Your task to perform on an android device: Add jbl charge 4 to the cart on target, then select checkout. Image 0: 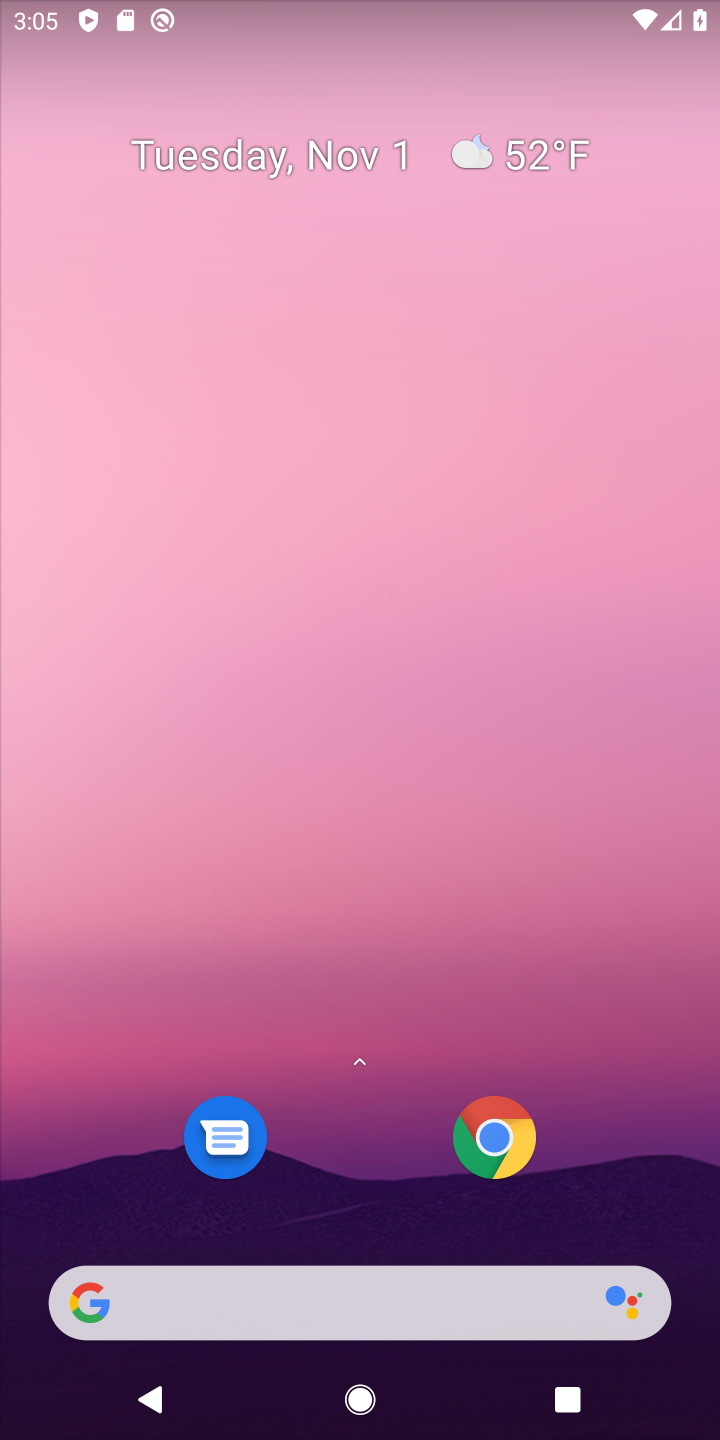
Step 0: click (409, 1320)
Your task to perform on an android device: Add jbl charge 4 to the cart on target, then select checkout. Image 1: 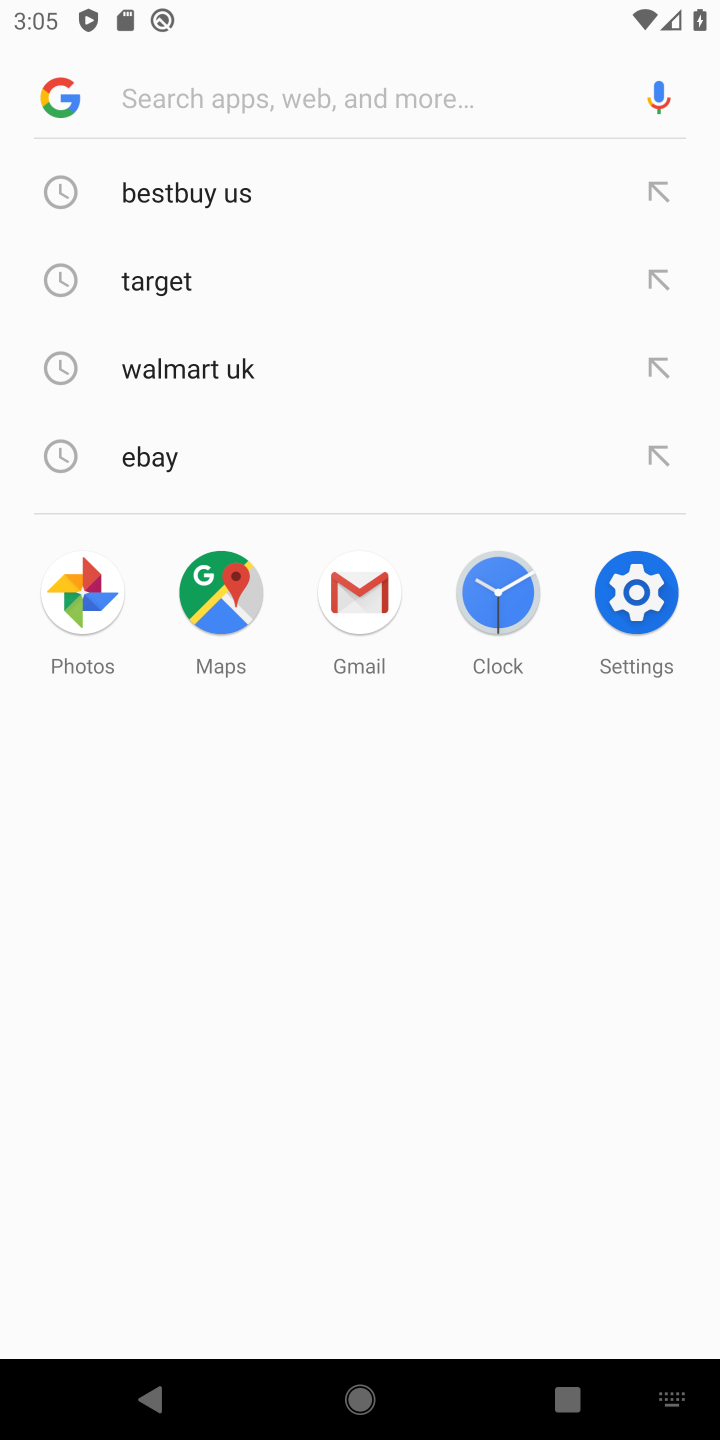
Step 1: click (179, 271)
Your task to perform on an android device: Add jbl charge 4 to the cart on target, then select checkout. Image 2: 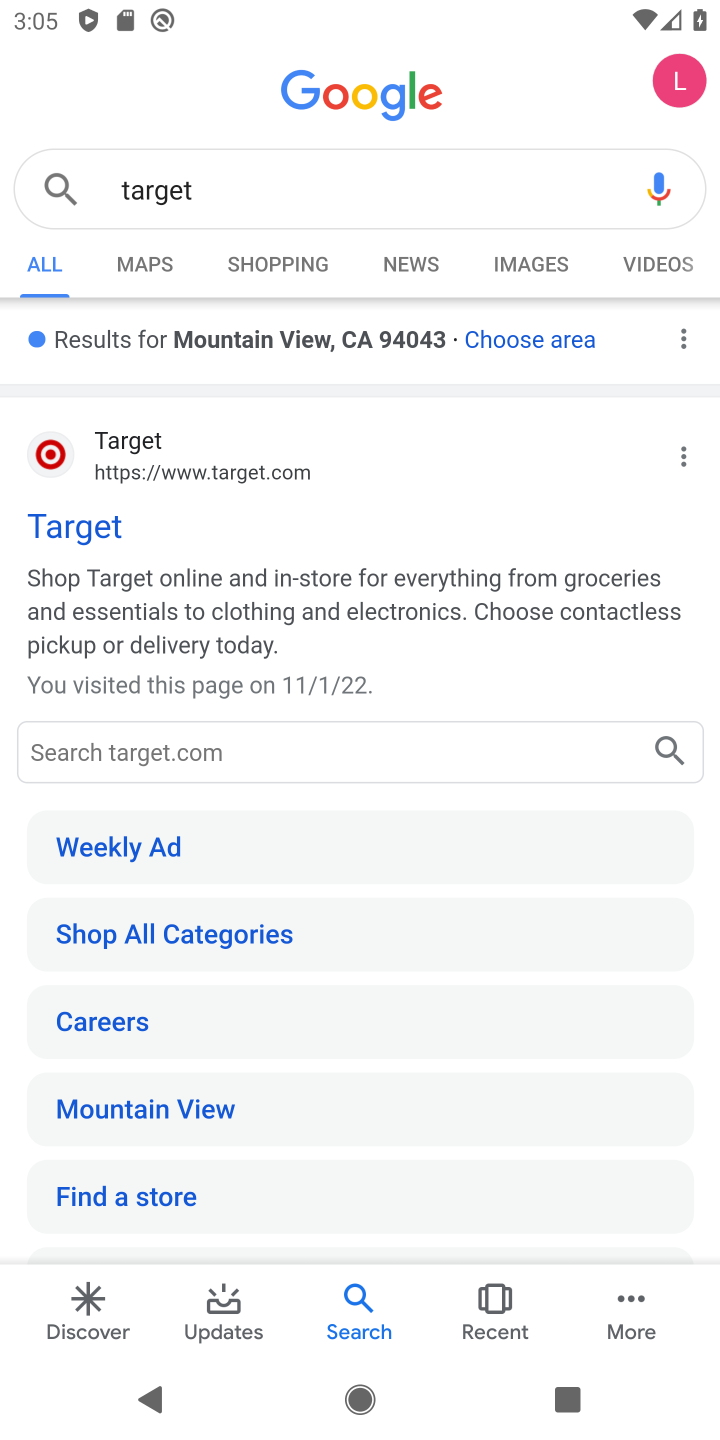
Step 2: click (77, 565)
Your task to perform on an android device: Add jbl charge 4 to the cart on target, then select checkout. Image 3: 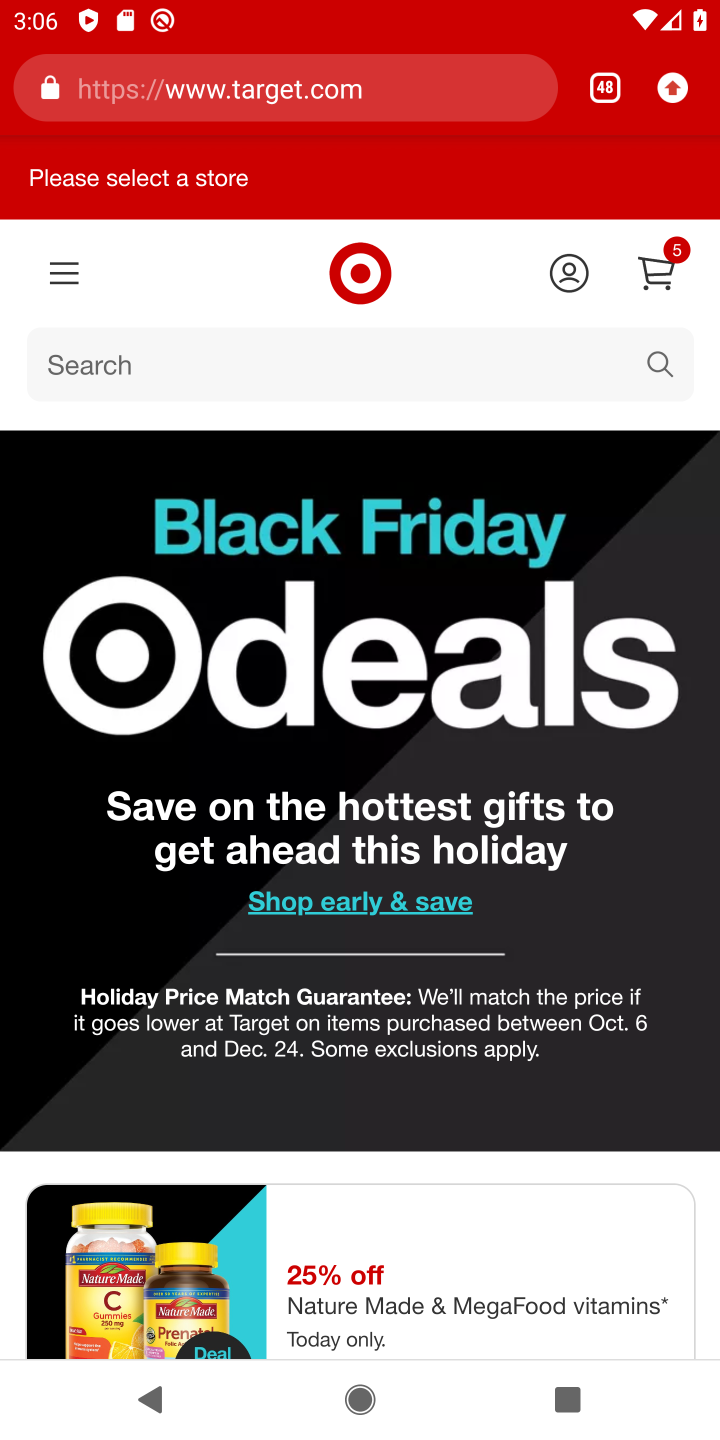
Step 3: click (578, 345)
Your task to perform on an android device: Add jbl charge 4 to the cart on target, then select checkout. Image 4: 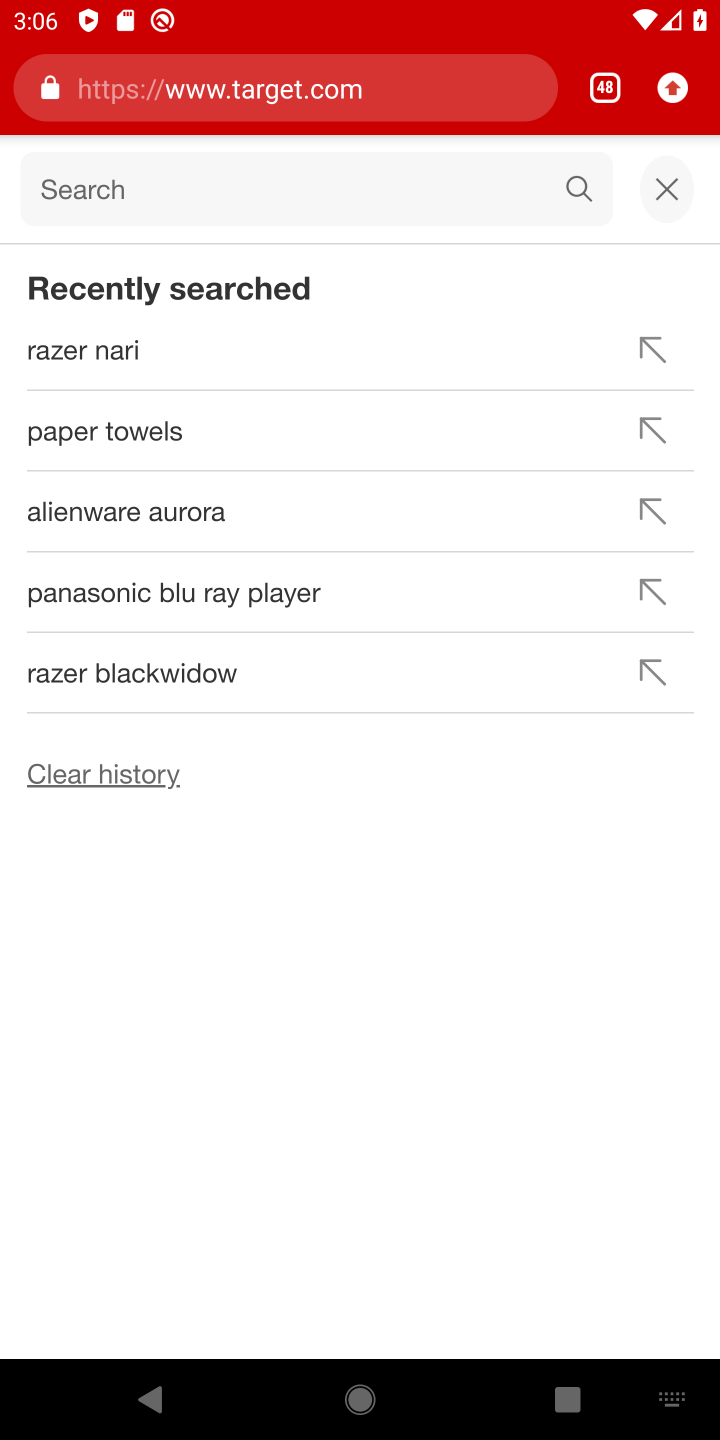
Step 4: type "jbl charge 4"
Your task to perform on an android device: Add jbl charge 4 to the cart on target, then select checkout. Image 5: 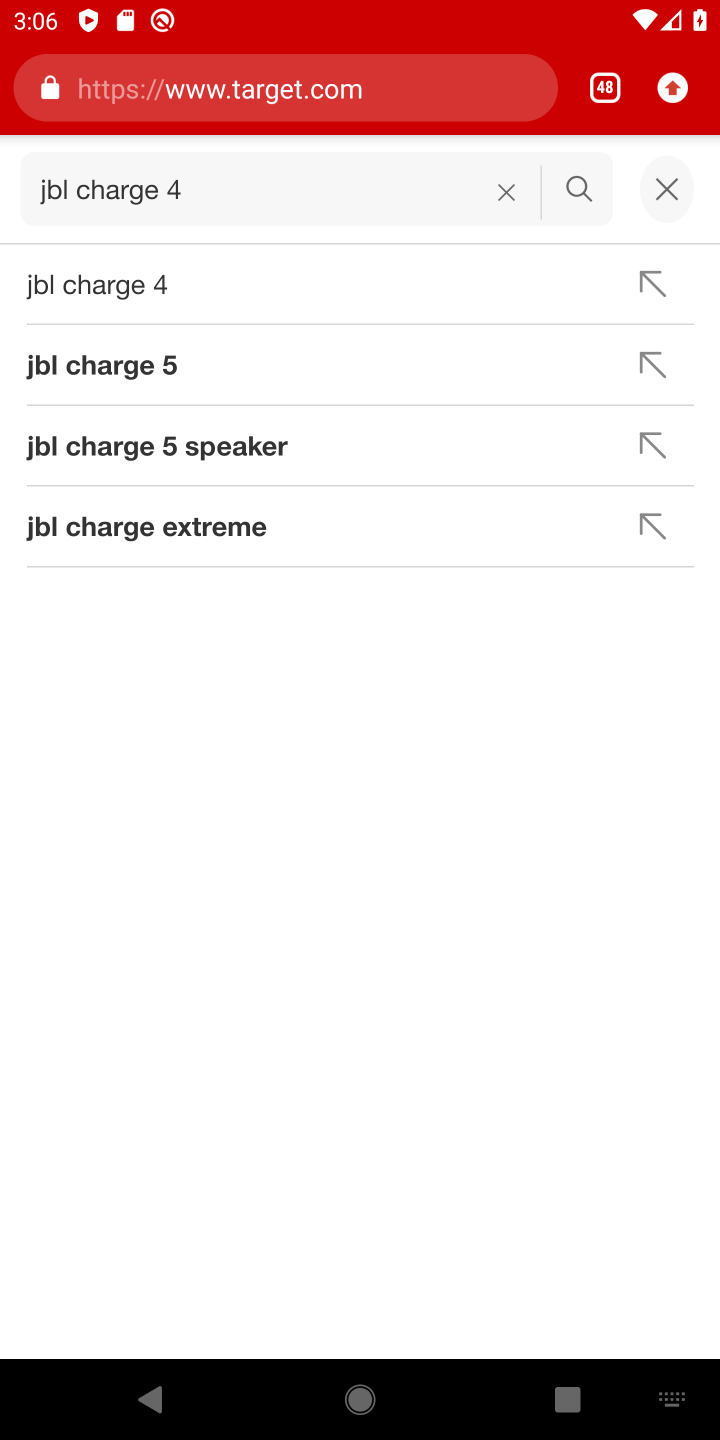
Step 5: click (207, 284)
Your task to perform on an android device: Add jbl charge 4 to the cart on target, then select checkout. Image 6: 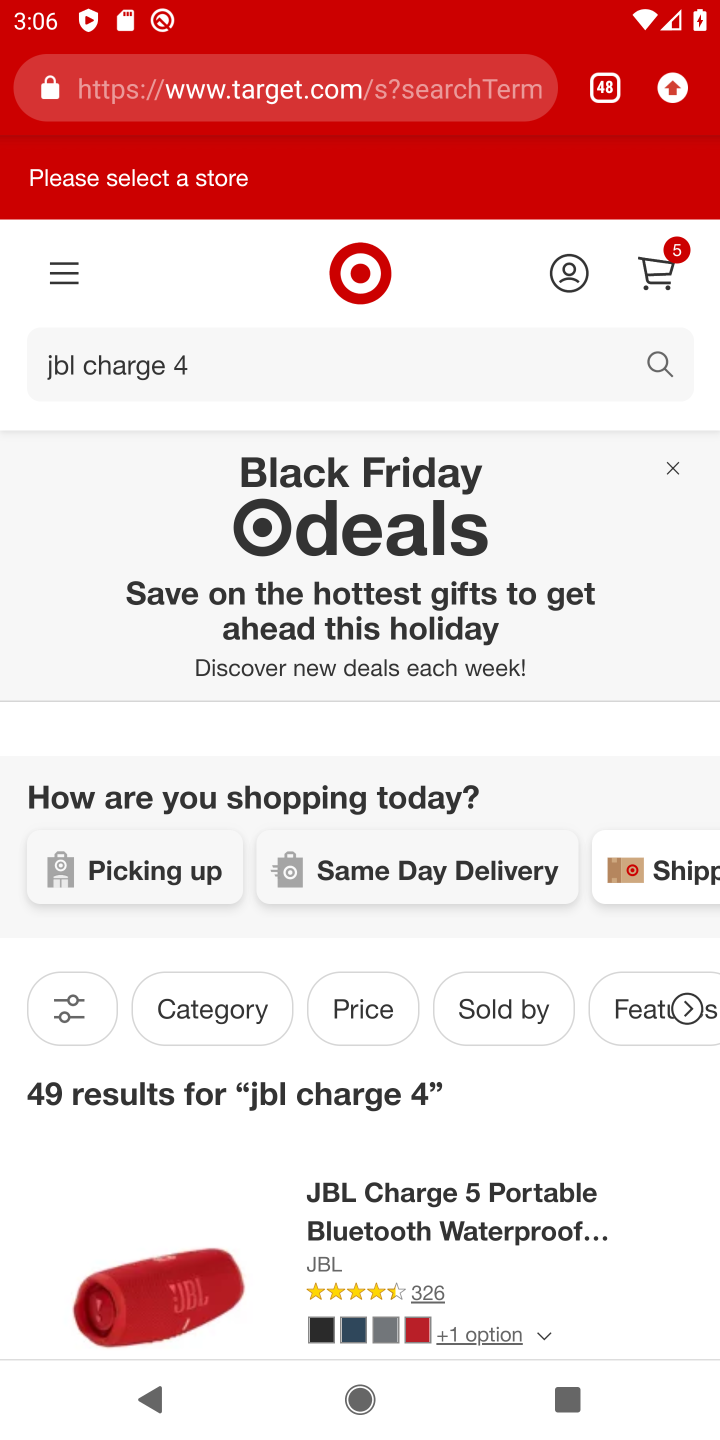
Step 6: press home button
Your task to perform on an android device: Add jbl charge 4 to the cart on target, then select checkout. Image 7: 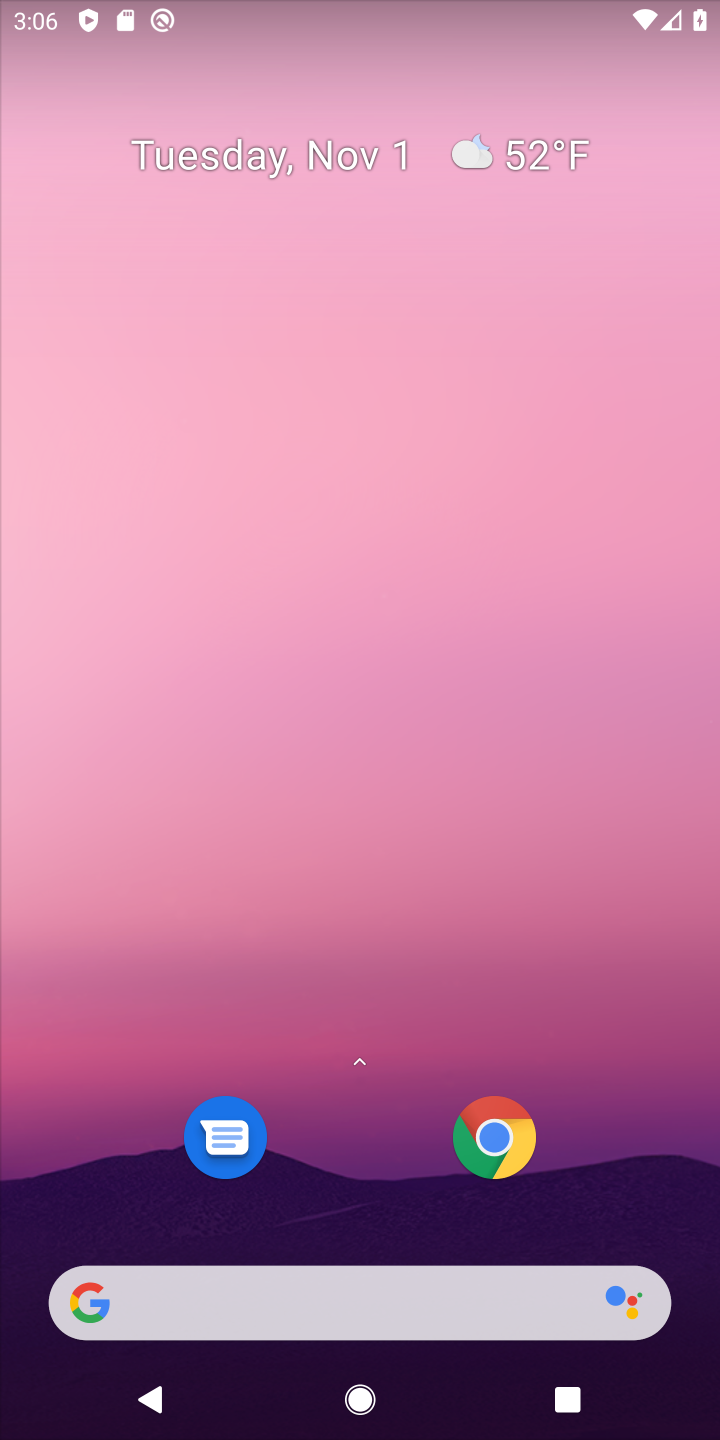
Step 7: click (305, 1317)
Your task to perform on an android device: Add jbl charge 4 to the cart on target, then select checkout. Image 8: 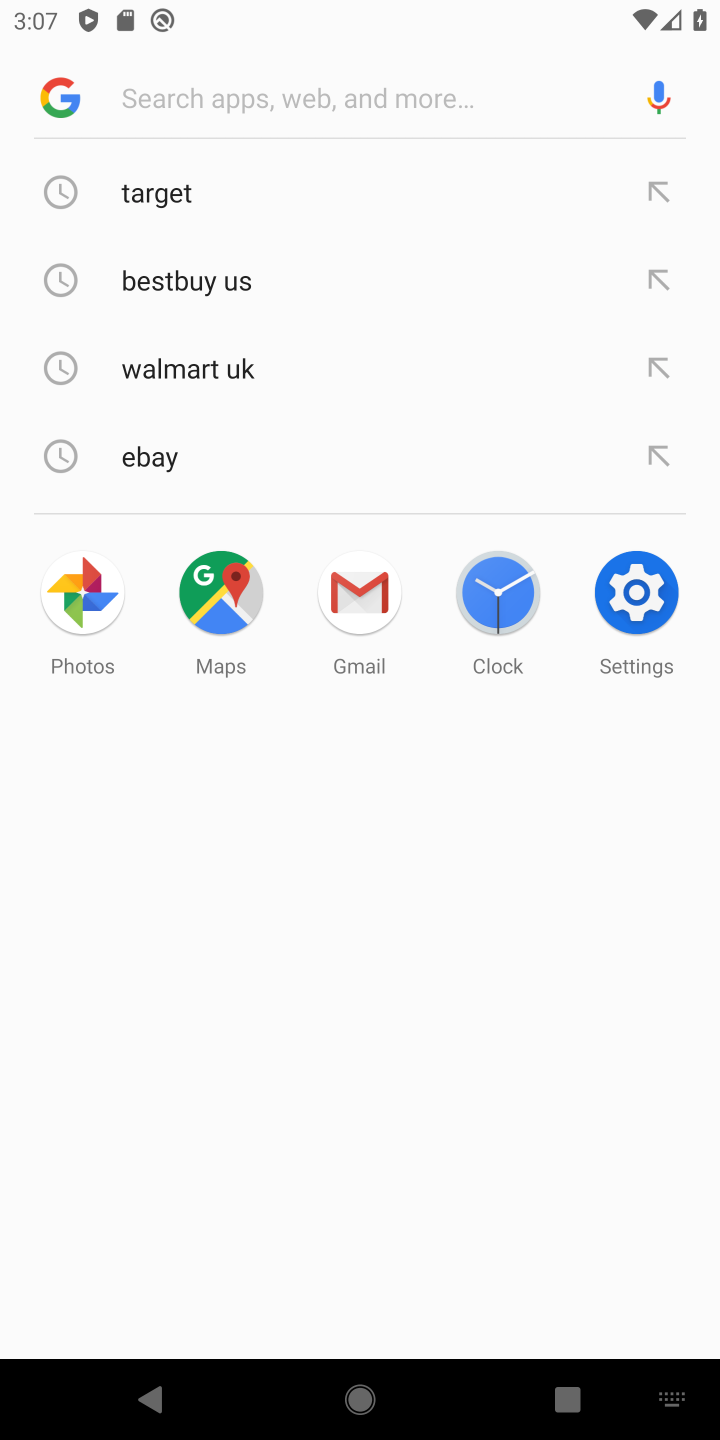
Step 8: click (414, 217)
Your task to perform on an android device: Add jbl charge 4 to the cart on target, then select checkout. Image 9: 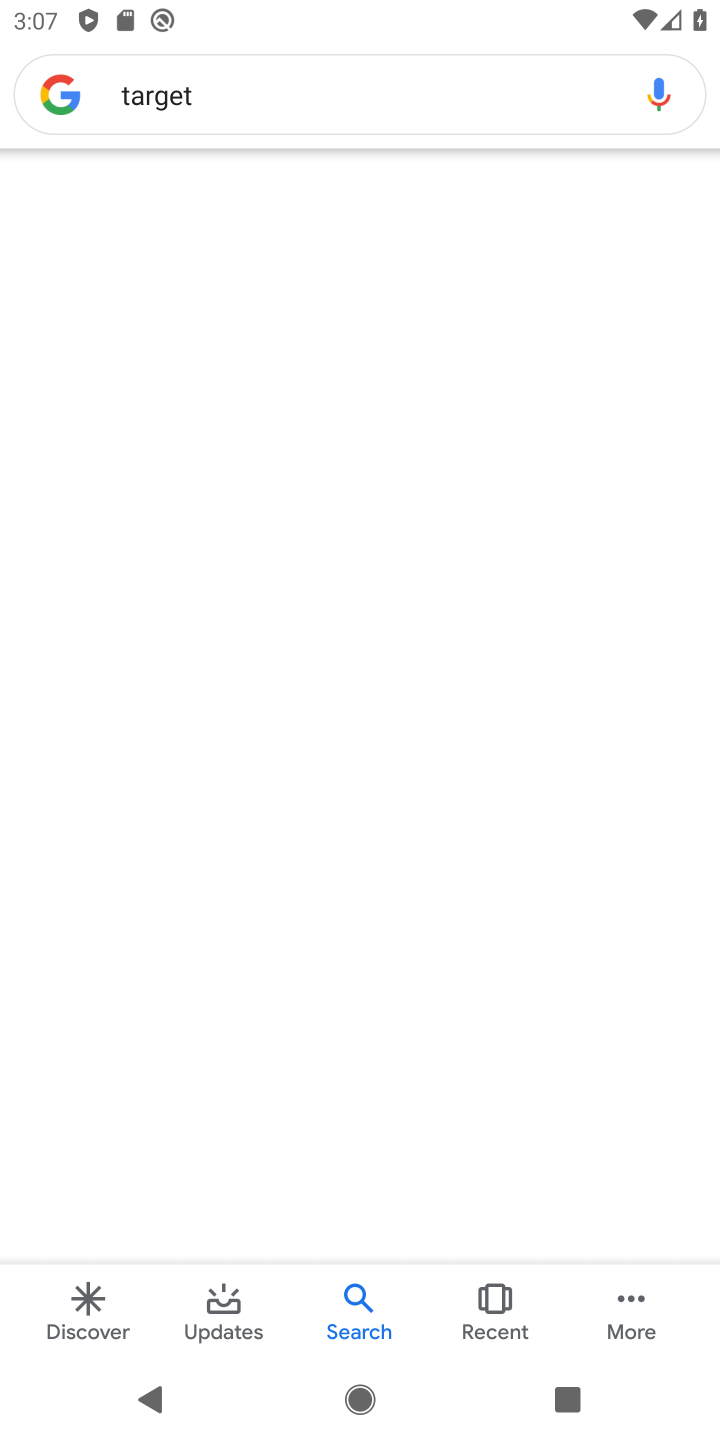
Step 9: task complete